Your task to perform on an android device: Open CNN.com Image 0: 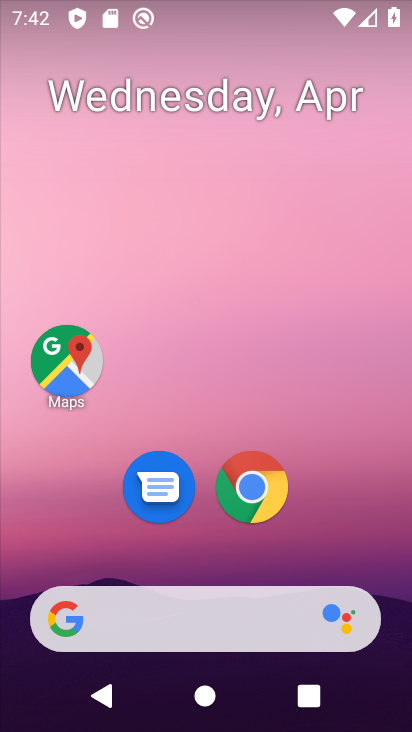
Step 0: click (258, 485)
Your task to perform on an android device: Open CNN.com Image 1: 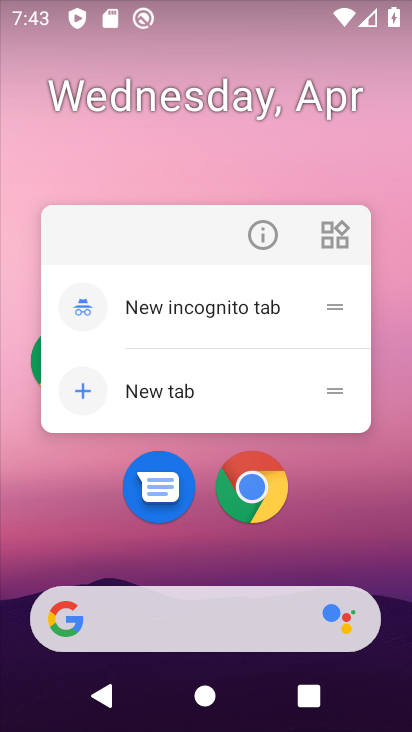
Step 1: drag from (336, 525) to (285, 70)
Your task to perform on an android device: Open CNN.com Image 2: 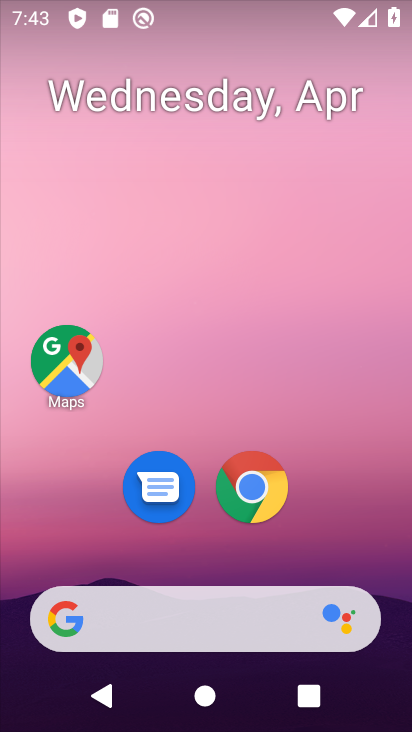
Step 2: drag from (354, 527) to (357, 100)
Your task to perform on an android device: Open CNN.com Image 3: 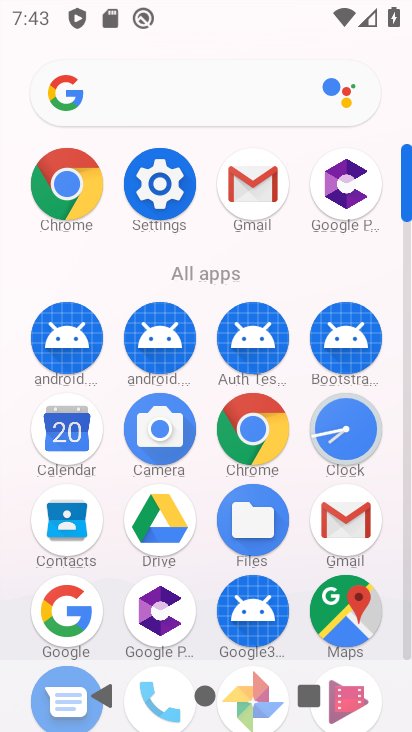
Step 3: click (269, 428)
Your task to perform on an android device: Open CNN.com Image 4: 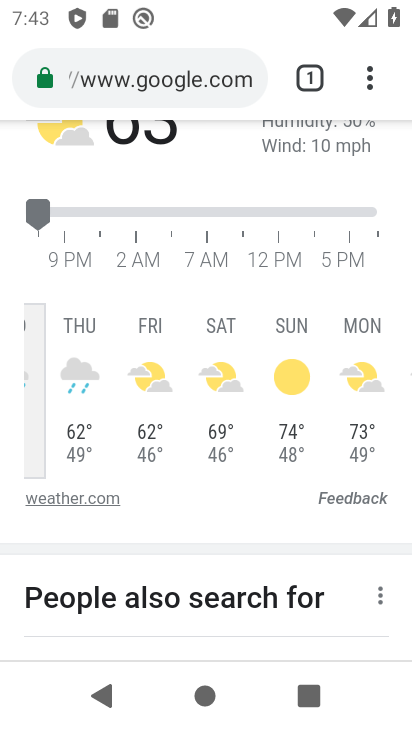
Step 4: click (230, 78)
Your task to perform on an android device: Open CNN.com Image 5: 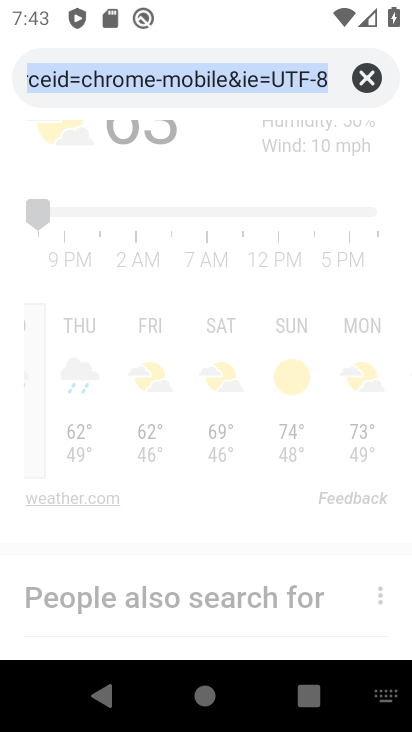
Step 5: type "cnn.com"
Your task to perform on an android device: Open CNN.com Image 6: 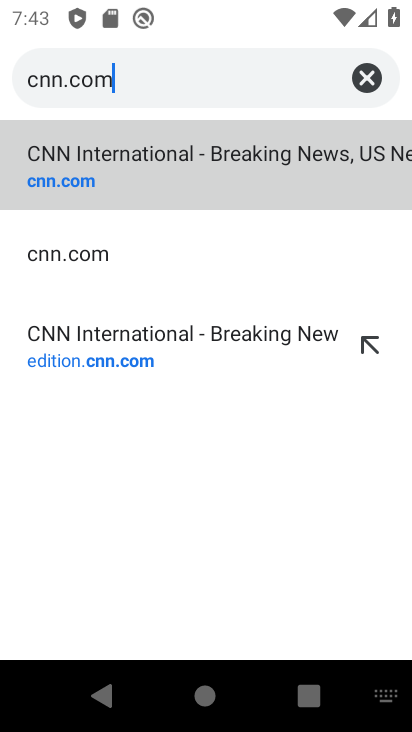
Step 6: click (59, 181)
Your task to perform on an android device: Open CNN.com Image 7: 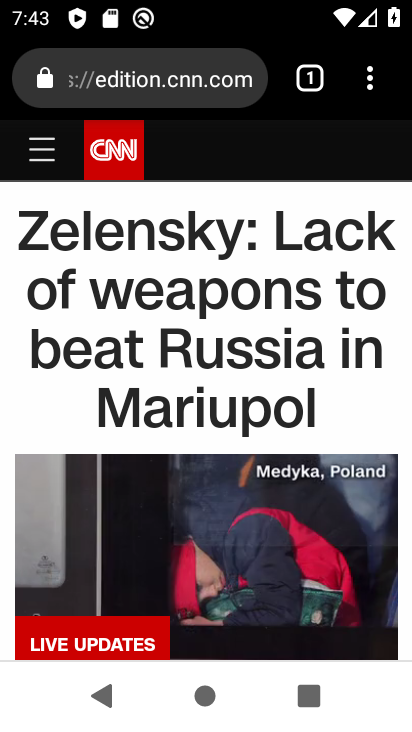
Step 7: click (57, 176)
Your task to perform on an android device: Open CNN.com Image 8: 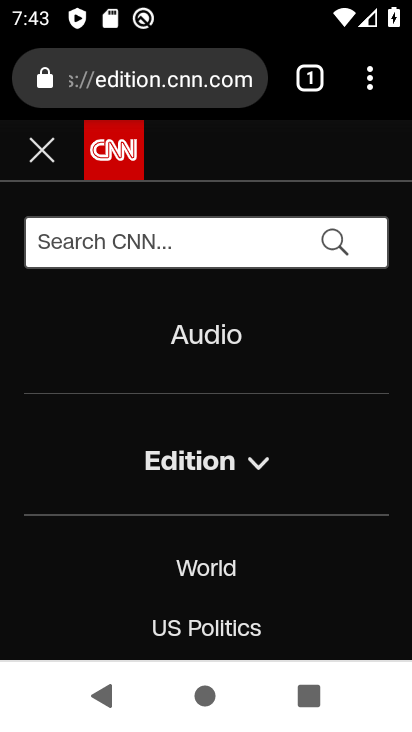
Step 8: task complete